Your task to perform on an android device: set the timer Image 0: 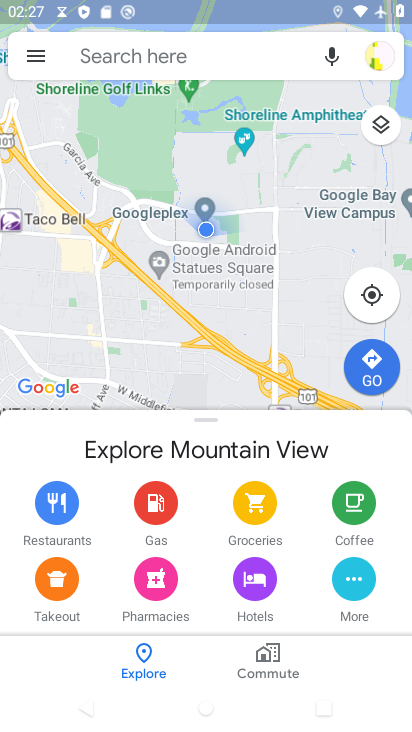
Step 0: press home button
Your task to perform on an android device: set the timer Image 1: 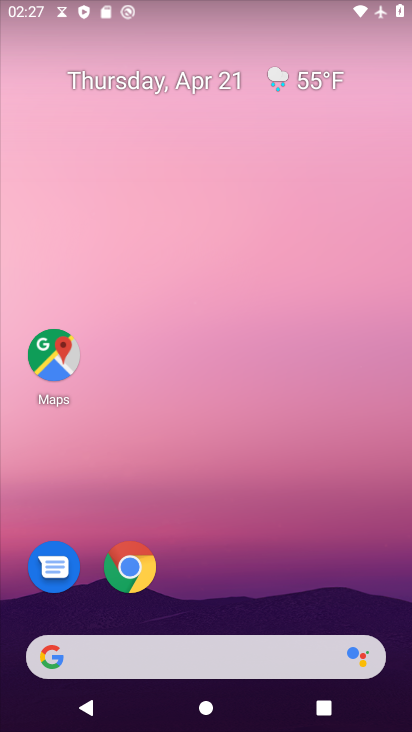
Step 1: drag from (245, 535) to (330, 51)
Your task to perform on an android device: set the timer Image 2: 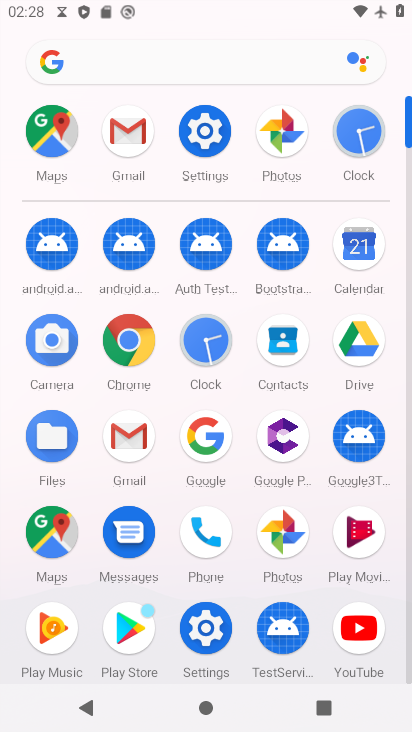
Step 2: click (359, 140)
Your task to perform on an android device: set the timer Image 3: 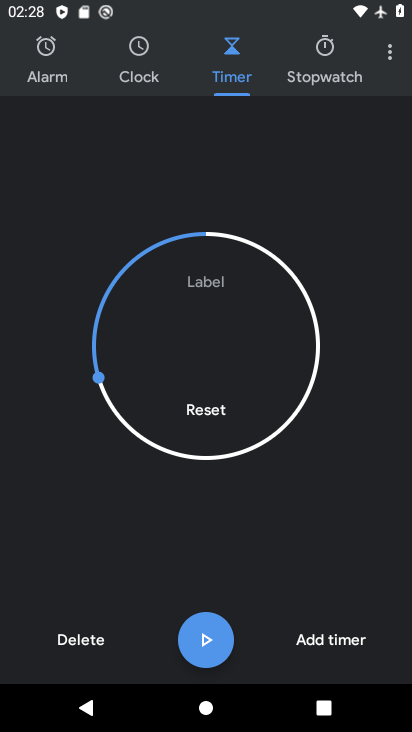
Step 3: click (94, 639)
Your task to perform on an android device: set the timer Image 4: 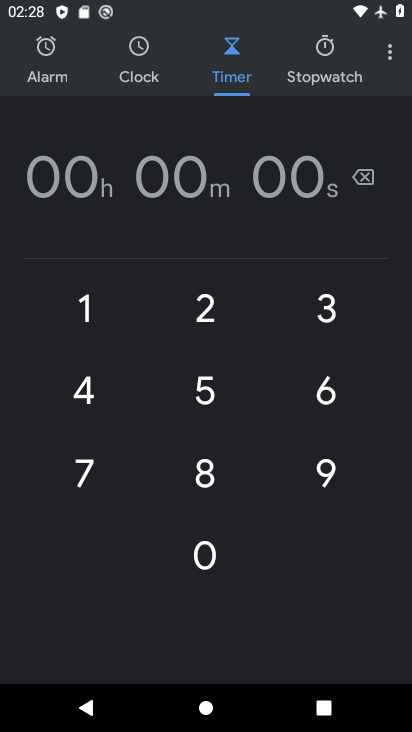
Step 4: click (205, 383)
Your task to perform on an android device: set the timer Image 5: 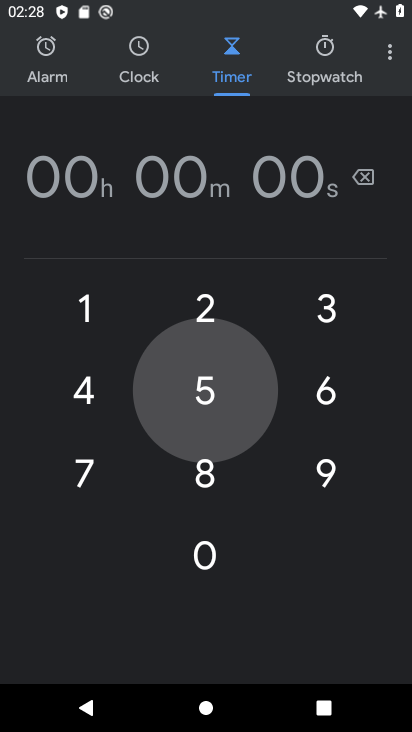
Step 5: click (330, 309)
Your task to perform on an android device: set the timer Image 6: 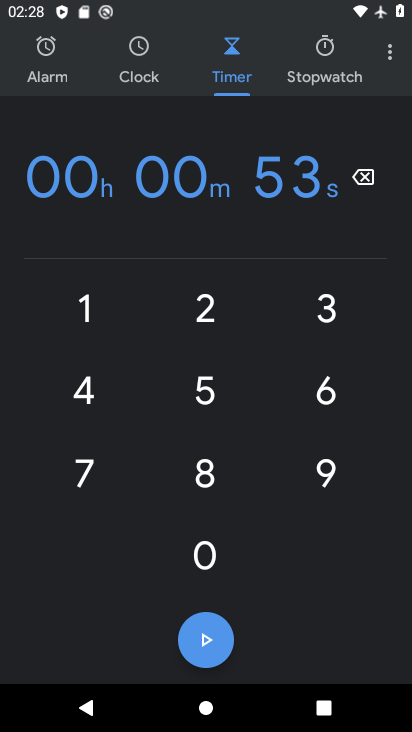
Step 6: click (206, 644)
Your task to perform on an android device: set the timer Image 7: 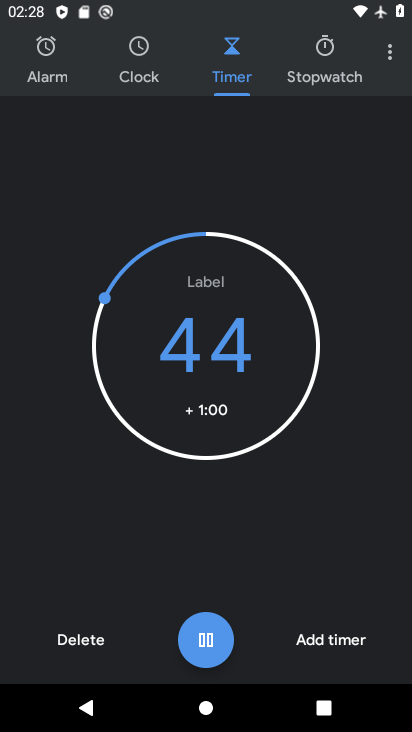
Step 7: click (205, 646)
Your task to perform on an android device: set the timer Image 8: 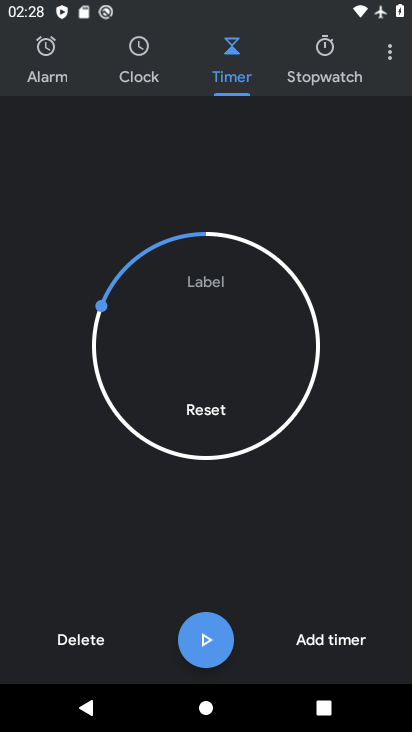
Step 8: task complete